Your task to perform on an android device: Search for seafood restaurants on Google Maps Image 0: 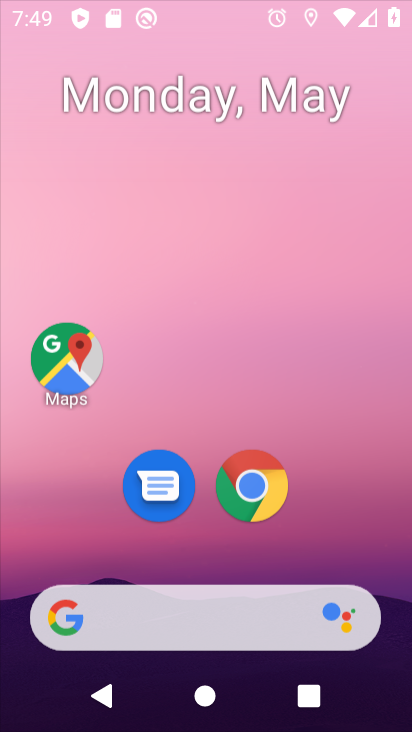
Step 0: press home button
Your task to perform on an android device: Search for seafood restaurants on Google Maps Image 1: 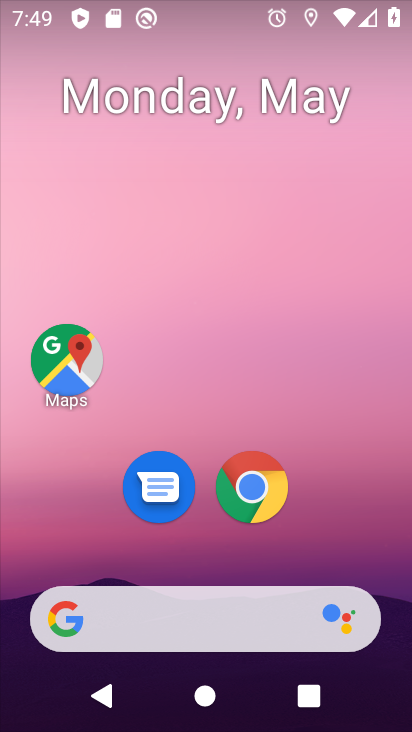
Step 1: drag from (313, 514) to (274, 168)
Your task to perform on an android device: Search for seafood restaurants on Google Maps Image 2: 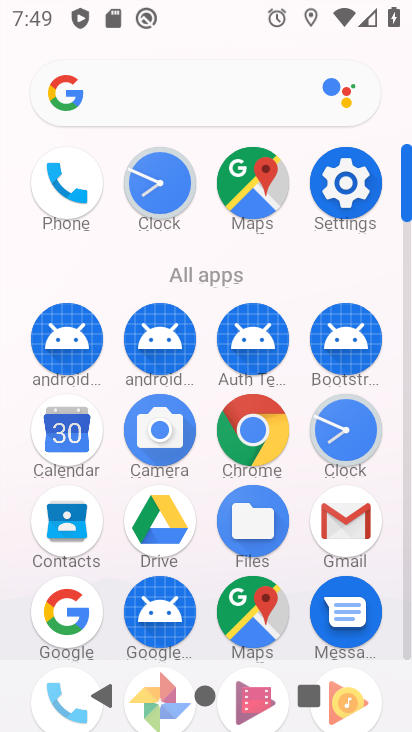
Step 2: click (248, 198)
Your task to perform on an android device: Search for seafood restaurants on Google Maps Image 3: 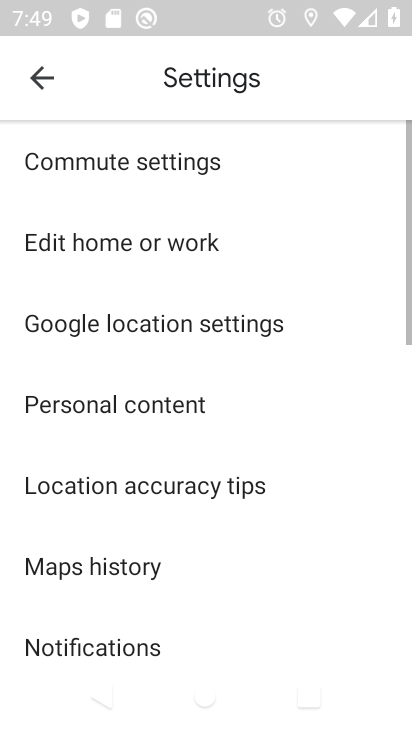
Step 3: click (42, 80)
Your task to perform on an android device: Search for seafood restaurants on Google Maps Image 4: 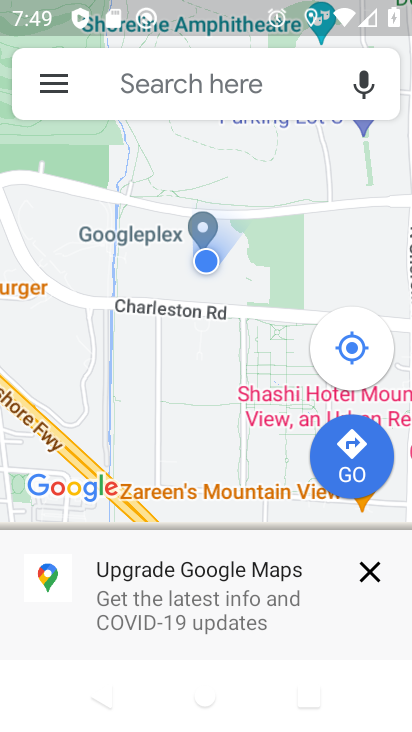
Step 4: click (242, 77)
Your task to perform on an android device: Search for seafood restaurants on Google Maps Image 5: 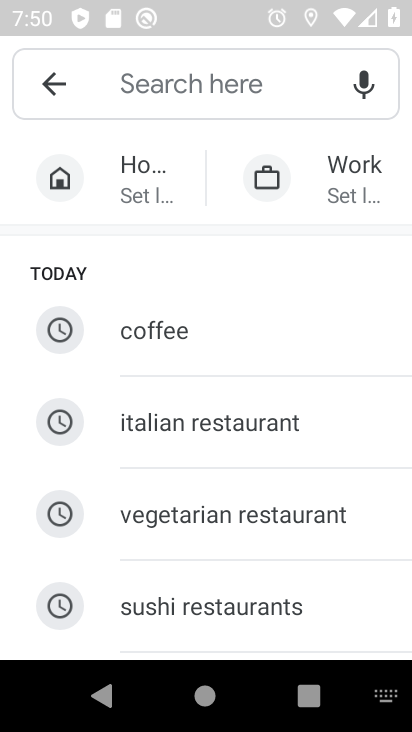
Step 5: type "seafood restaurant"
Your task to perform on an android device: Search for seafood restaurants on Google Maps Image 6: 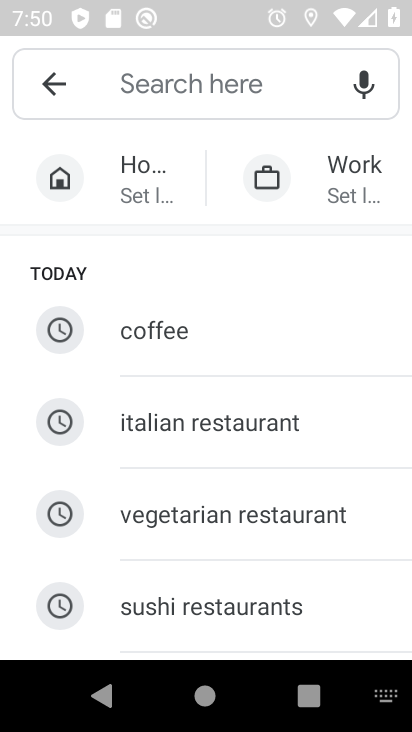
Step 6: click (246, 83)
Your task to perform on an android device: Search for seafood restaurants on Google Maps Image 7: 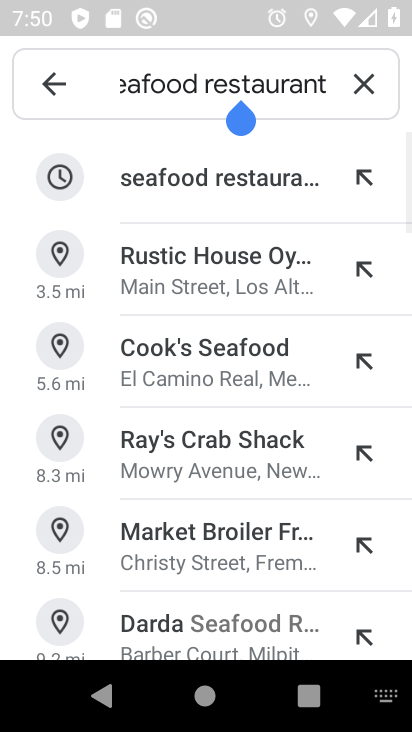
Step 7: click (220, 177)
Your task to perform on an android device: Search for seafood restaurants on Google Maps Image 8: 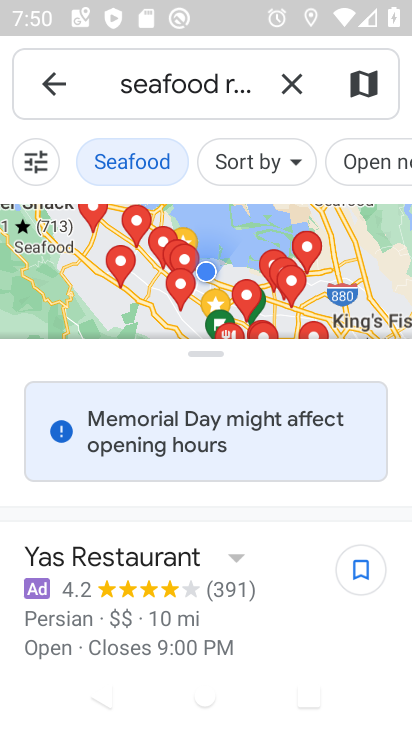
Step 8: task complete